Your task to perform on an android device: Do I have any events tomorrow? Image 0: 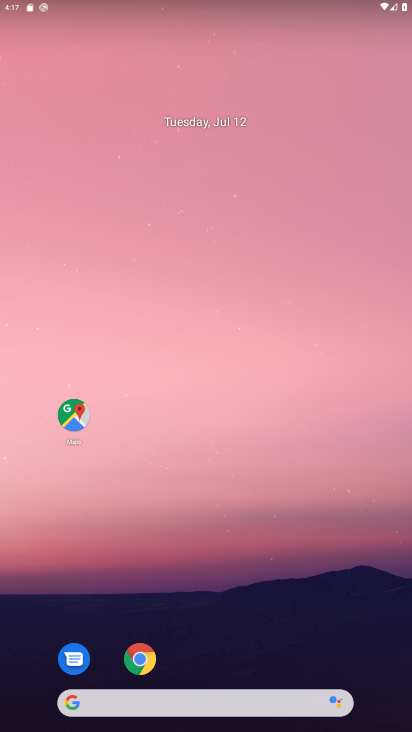
Step 0: drag from (125, 464) to (173, 225)
Your task to perform on an android device: Do I have any events tomorrow? Image 1: 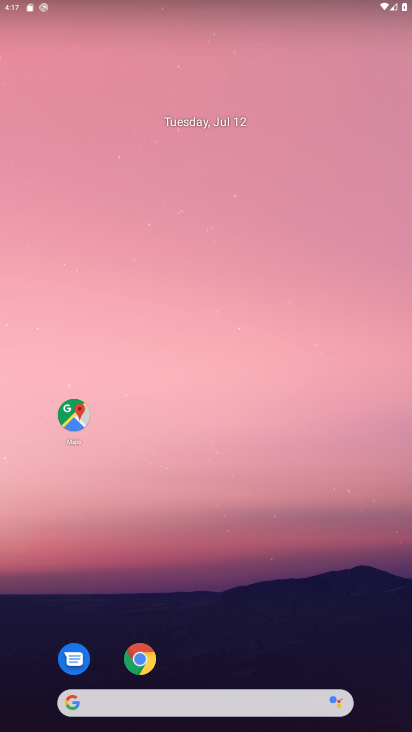
Step 1: drag from (27, 673) to (258, 3)
Your task to perform on an android device: Do I have any events tomorrow? Image 2: 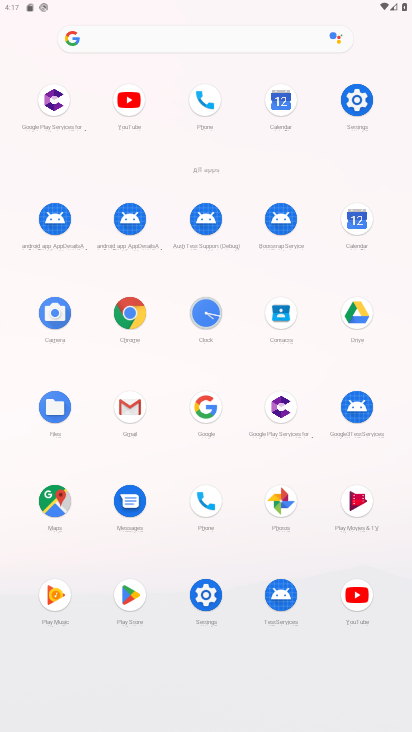
Step 2: click (354, 233)
Your task to perform on an android device: Do I have any events tomorrow? Image 3: 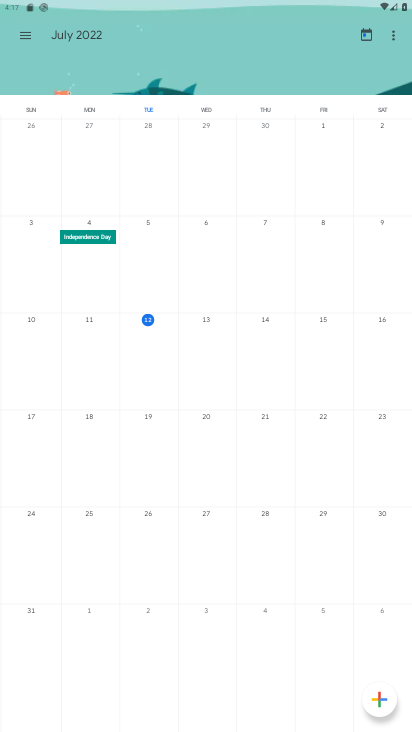
Step 3: task complete